Your task to perform on an android device: Open Chrome and go to the settings page Image 0: 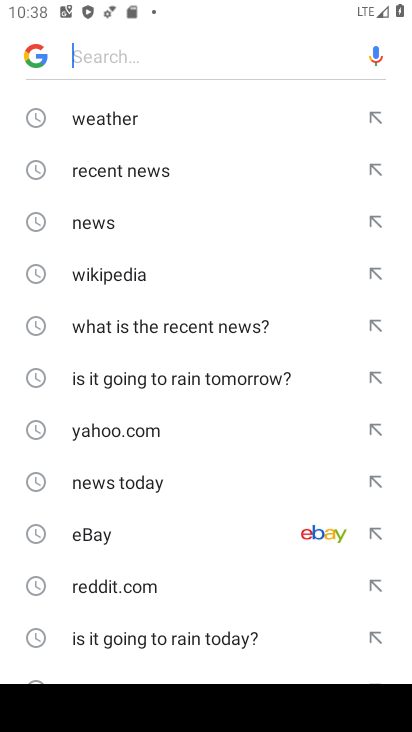
Step 0: press home button
Your task to perform on an android device: Open Chrome and go to the settings page Image 1: 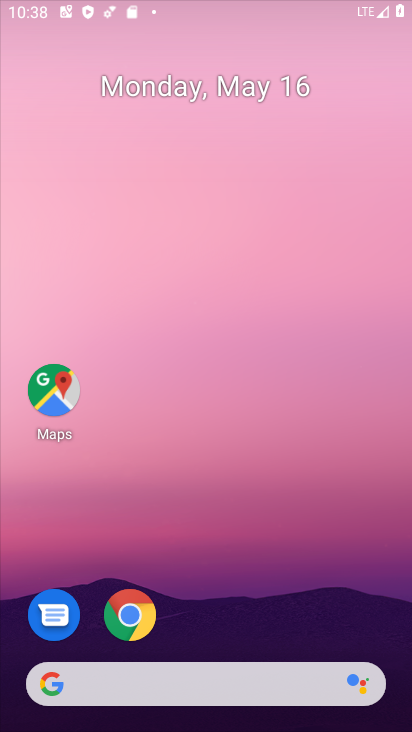
Step 1: drag from (193, 568) to (272, 176)
Your task to perform on an android device: Open Chrome and go to the settings page Image 2: 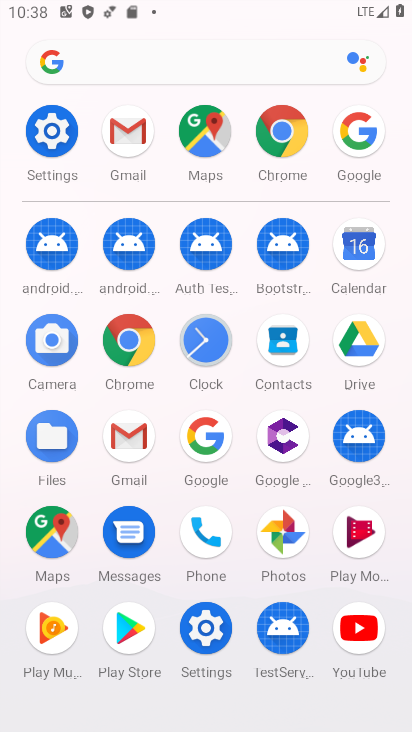
Step 2: click (283, 178)
Your task to perform on an android device: Open Chrome and go to the settings page Image 3: 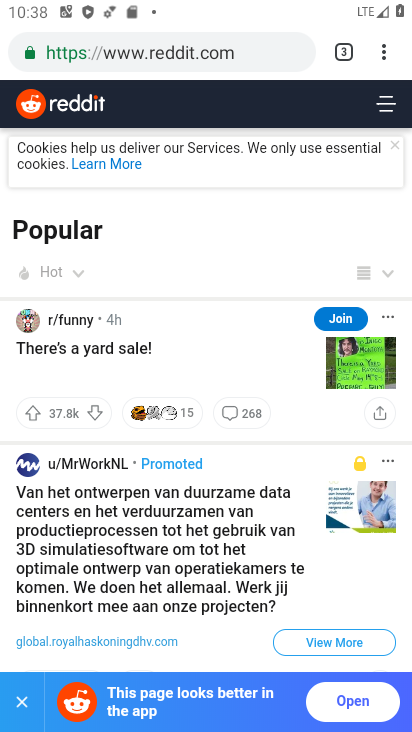
Step 3: click (383, 59)
Your task to perform on an android device: Open Chrome and go to the settings page Image 4: 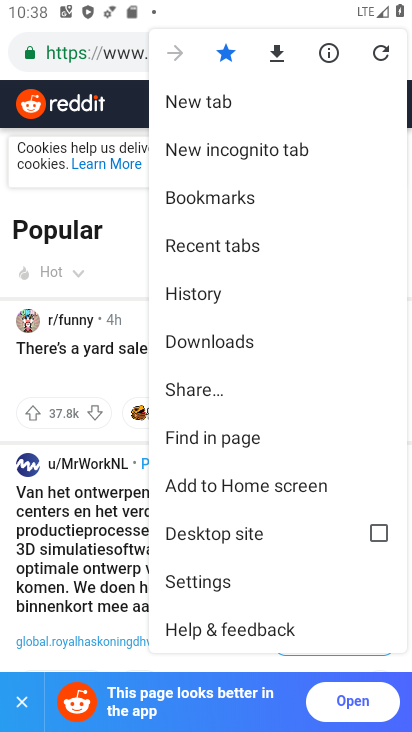
Step 4: click (237, 584)
Your task to perform on an android device: Open Chrome and go to the settings page Image 5: 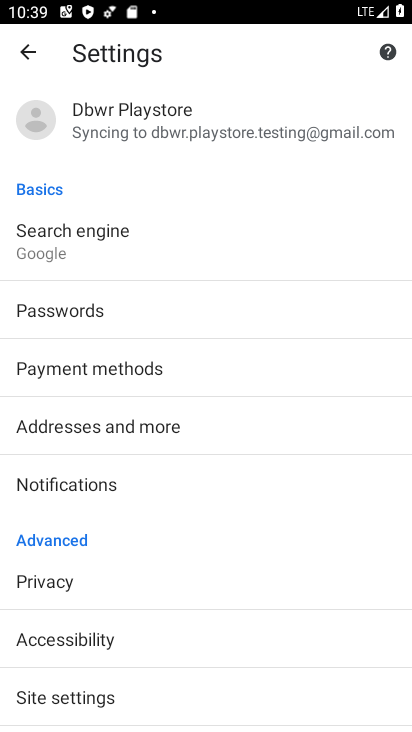
Step 5: task complete